Your task to perform on an android device: Open Chrome and go to the settings page Image 0: 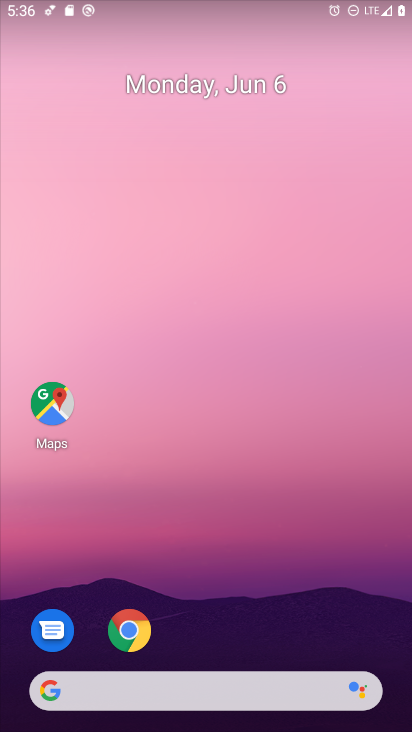
Step 0: click (131, 630)
Your task to perform on an android device: Open Chrome and go to the settings page Image 1: 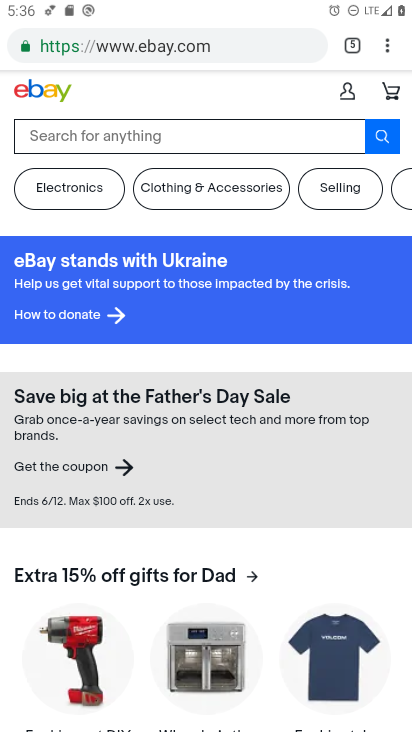
Step 1: click (385, 44)
Your task to perform on an android device: Open Chrome and go to the settings page Image 2: 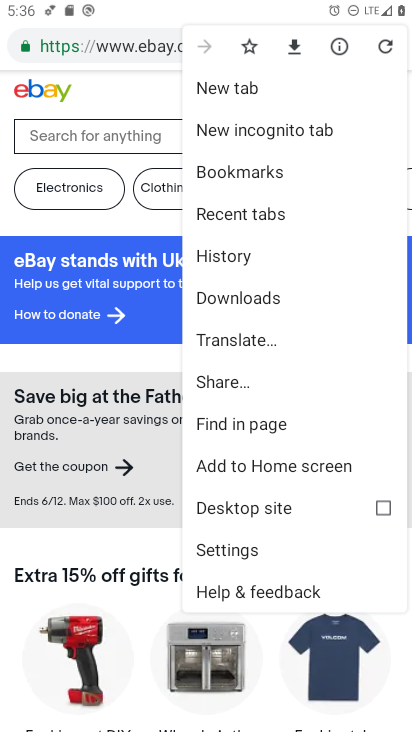
Step 2: click (230, 559)
Your task to perform on an android device: Open Chrome and go to the settings page Image 3: 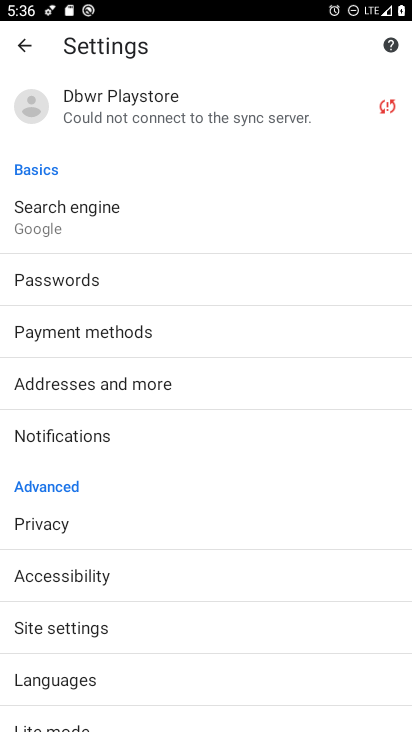
Step 3: task complete